Your task to perform on an android device: turn smart compose on in the gmail app Image 0: 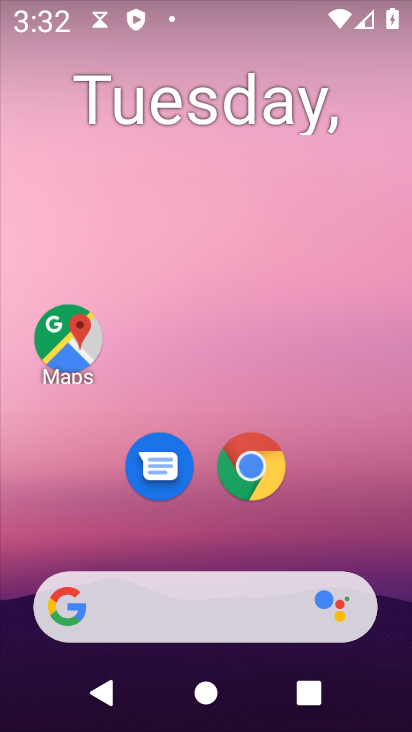
Step 0: drag from (394, 543) to (304, 31)
Your task to perform on an android device: turn smart compose on in the gmail app Image 1: 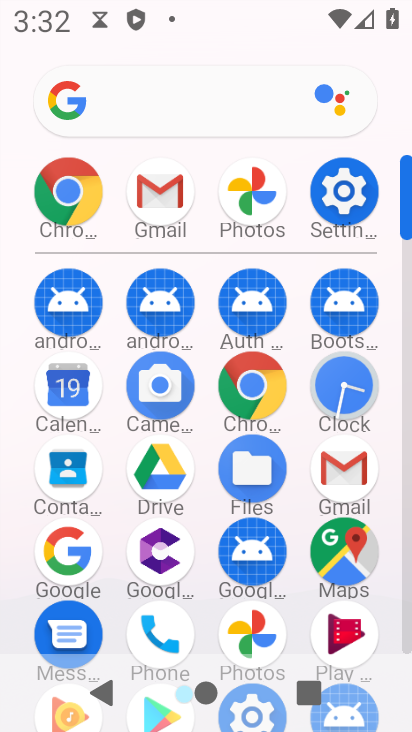
Step 1: drag from (5, 588) to (10, 228)
Your task to perform on an android device: turn smart compose on in the gmail app Image 2: 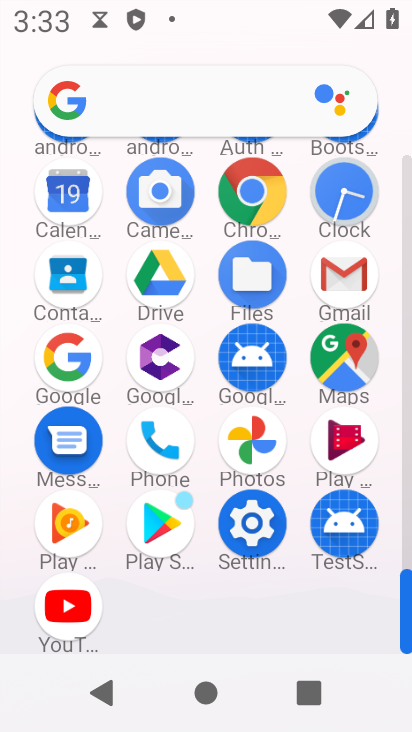
Step 2: drag from (24, 161) to (31, 466)
Your task to perform on an android device: turn smart compose on in the gmail app Image 3: 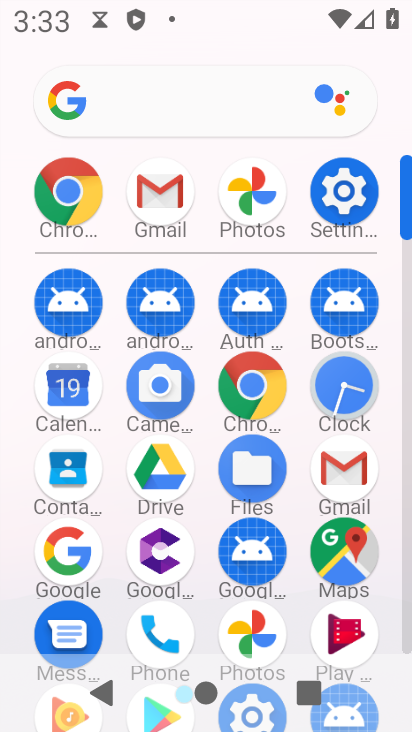
Step 3: click (165, 192)
Your task to perform on an android device: turn smart compose on in the gmail app Image 4: 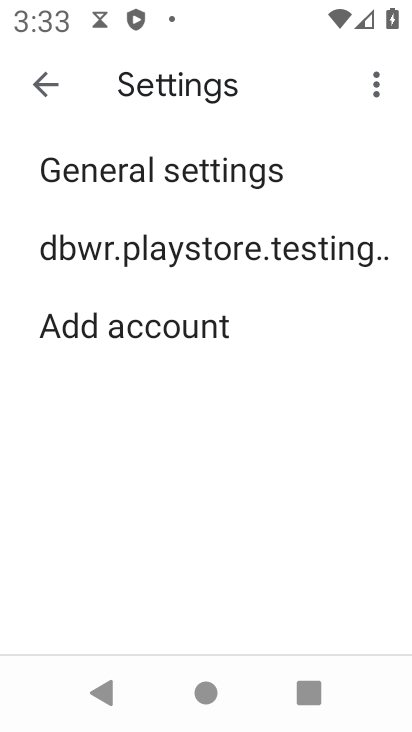
Step 4: click (191, 260)
Your task to perform on an android device: turn smart compose on in the gmail app Image 5: 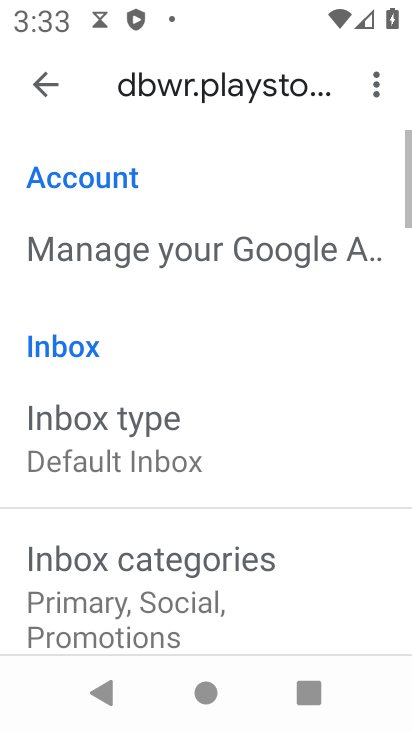
Step 5: drag from (255, 623) to (237, 169)
Your task to perform on an android device: turn smart compose on in the gmail app Image 6: 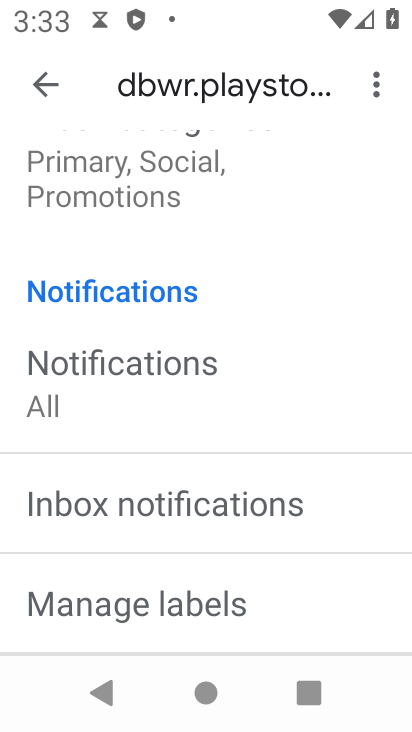
Step 6: drag from (256, 487) to (247, 156)
Your task to perform on an android device: turn smart compose on in the gmail app Image 7: 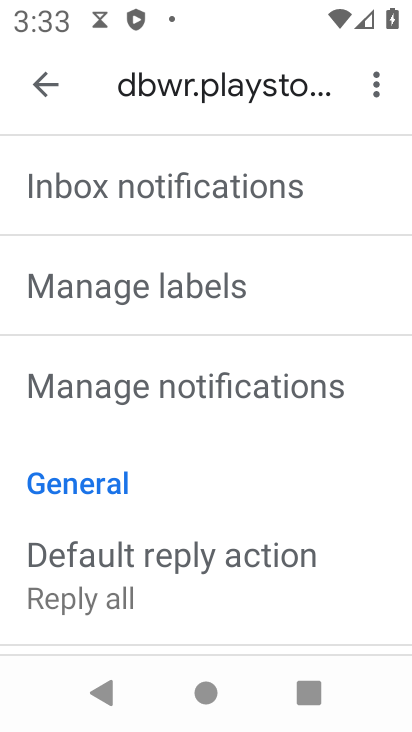
Step 7: drag from (260, 589) to (235, 178)
Your task to perform on an android device: turn smart compose on in the gmail app Image 8: 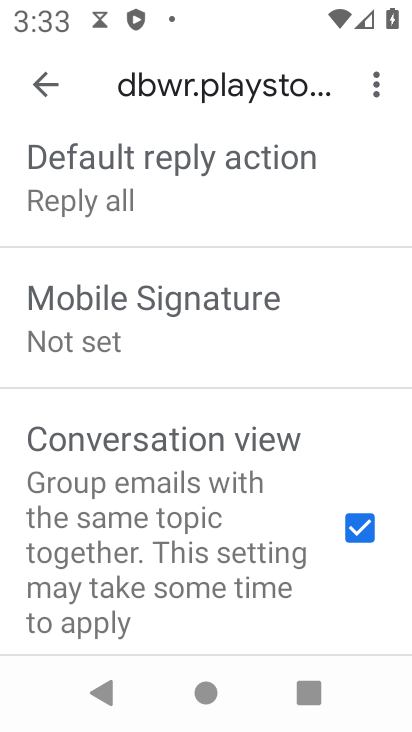
Step 8: drag from (223, 557) to (233, 133)
Your task to perform on an android device: turn smart compose on in the gmail app Image 9: 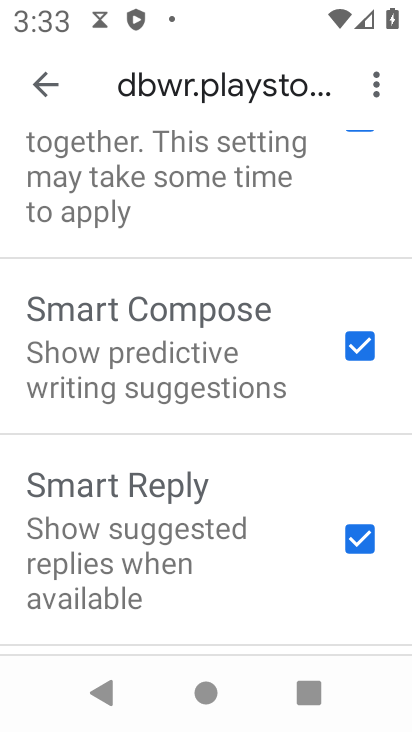
Step 9: drag from (235, 502) to (250, 108)
Your task to perform on an android device: turn smart compose on in the gmail app Image 10: 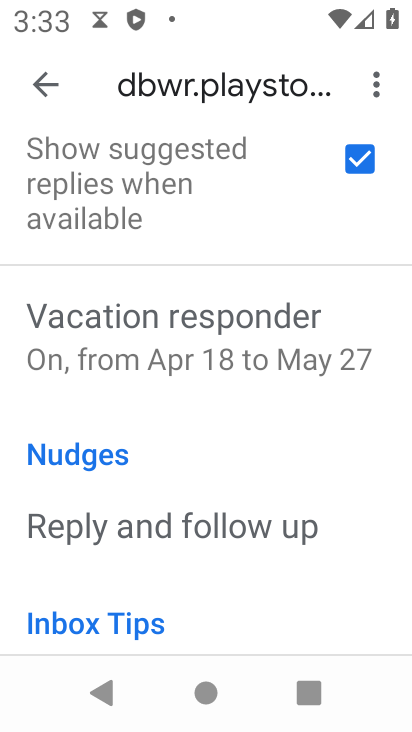
Step 10: drag from (248, 469) to (213, 119)
Your task to perform on an android device: turn smart compose on in the gmail app Image 11: 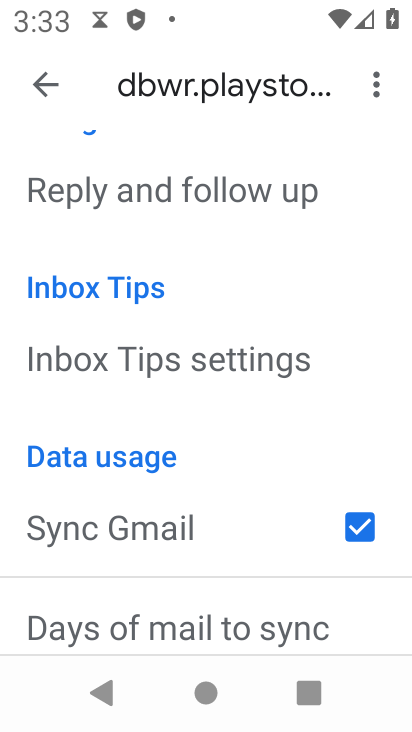
Step 11: drag from (219, 466) to (232, 138)
Your task to perform on an android device: turn smart compose on in the gmail app Image 12: 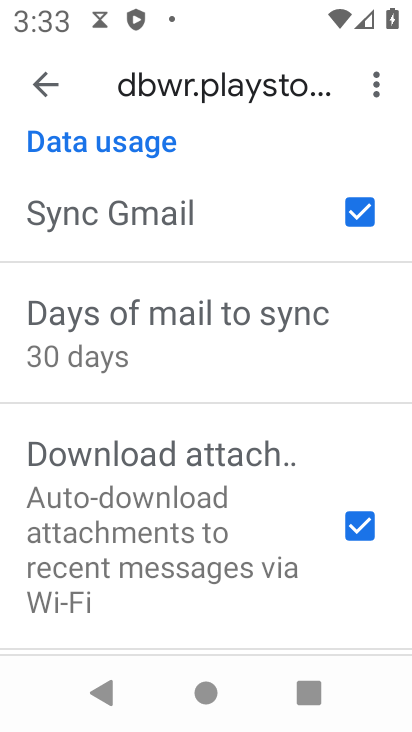
Step 12: drag from (230, 486) to (229, 193)
Your task to perform on an android device: turn smart compose on in the gmail app Image 13: 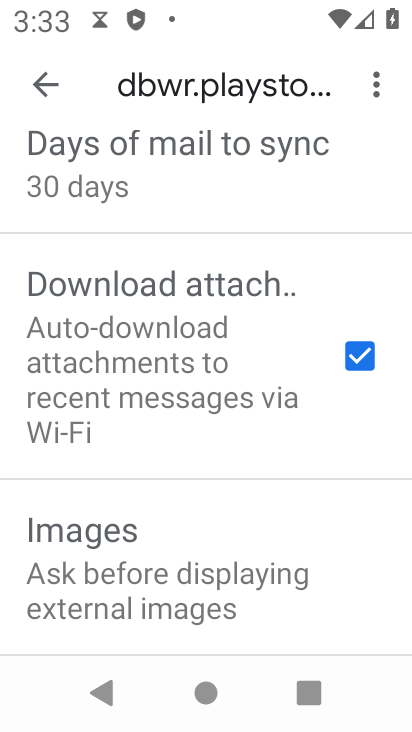
Step 13: drag from (199, 561) to (193, 242)
Your task to perform on an android device: turn smart compose on in the gmail app Image 14: 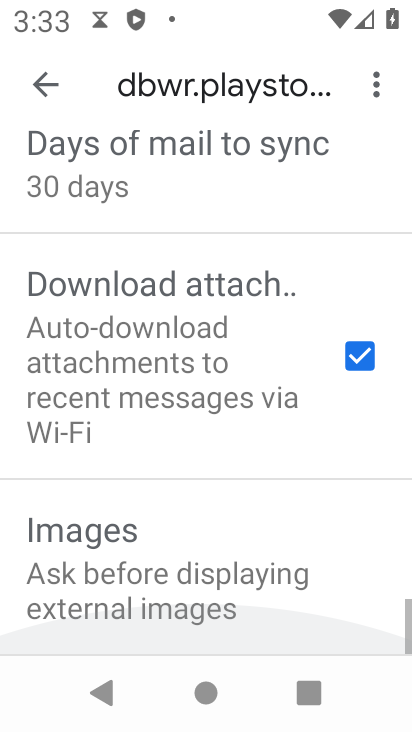
Step 14: drag from (192, 257) to (190, 603)
Your task to perform on an android device: turn smart compose on in the gmail app Image 15: 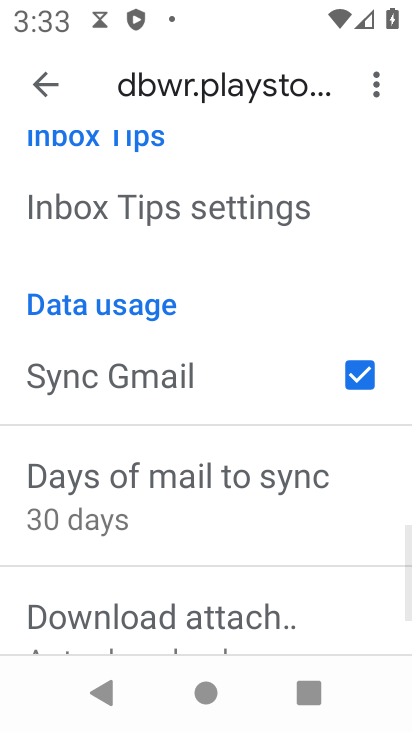
Step 15: drag from (213, 272) to (209, 610)
Your task to perform on an android device: turn smart compose on in the gmail app Image 16: 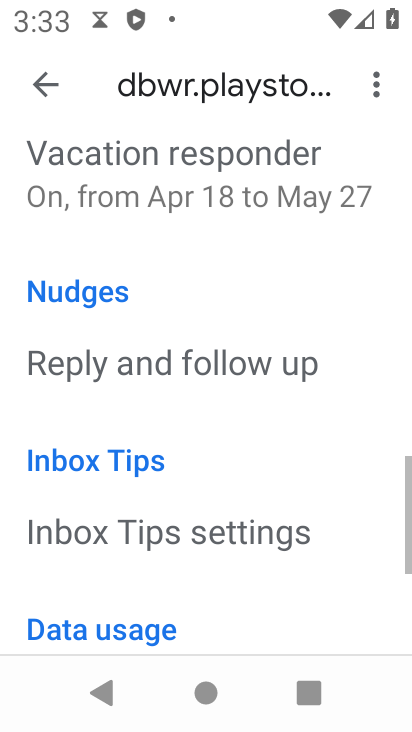
Step 16: drag from (216, 277) to (216, 588)
Your task to perform on an android device: turn smart compose on in the gmail app Image 17: 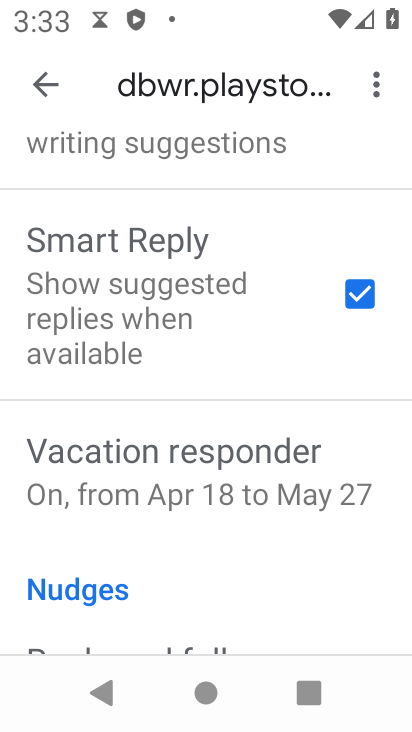
Step 17: drag from (229, 243) to (230, 463)
Your task to perform on an android device: turn smart compose on in the gmail app Image 18: 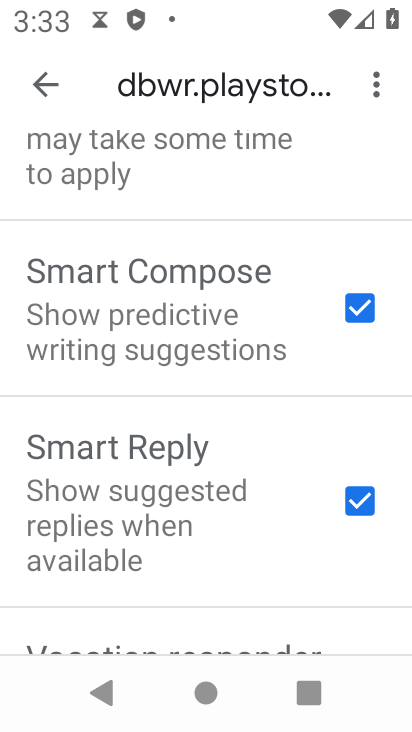
Step 18: click (347, 308)
Your task to perform on an android device: turn smart compose on in the gmail app Image 19: 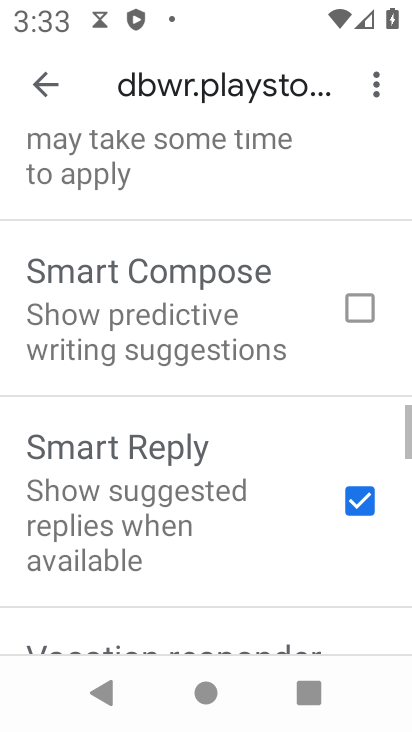
Step 19: click (357, 310)
Your task to perform on an android device: turn smart compose on in the gmail app Image 20: 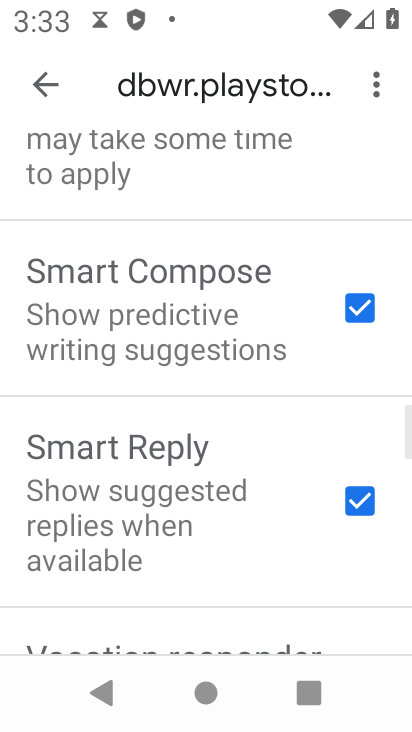
Step 20: task complete